Your task to perform on an android device: Search for Mexican restaurants on Maps Image 0: 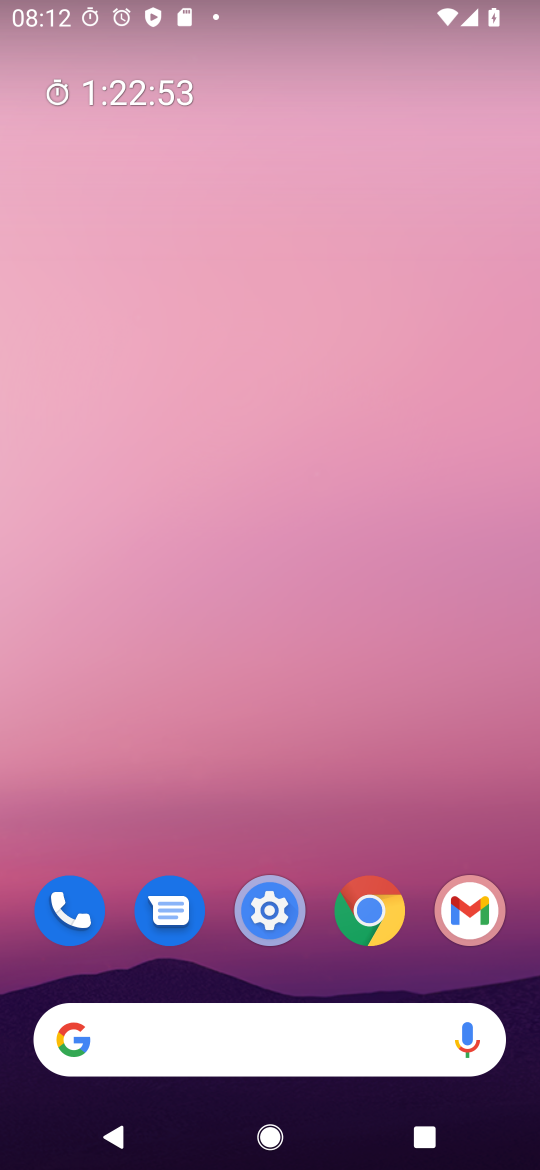
Step 0: drag from (419, 1008) to (349, 136)
Your task to perform on an android device: Search for Mexican restaurants on Maps Image 1: 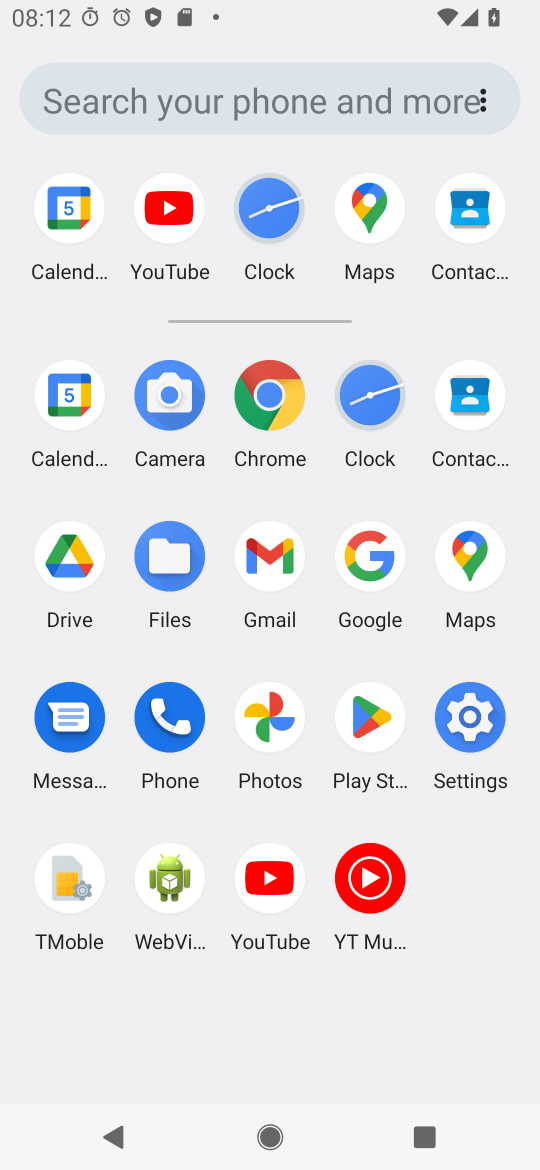
Step 1: click (473, 559)
Your task to perform on an android device: Search for Mexican restaurants on Maps Image 2: 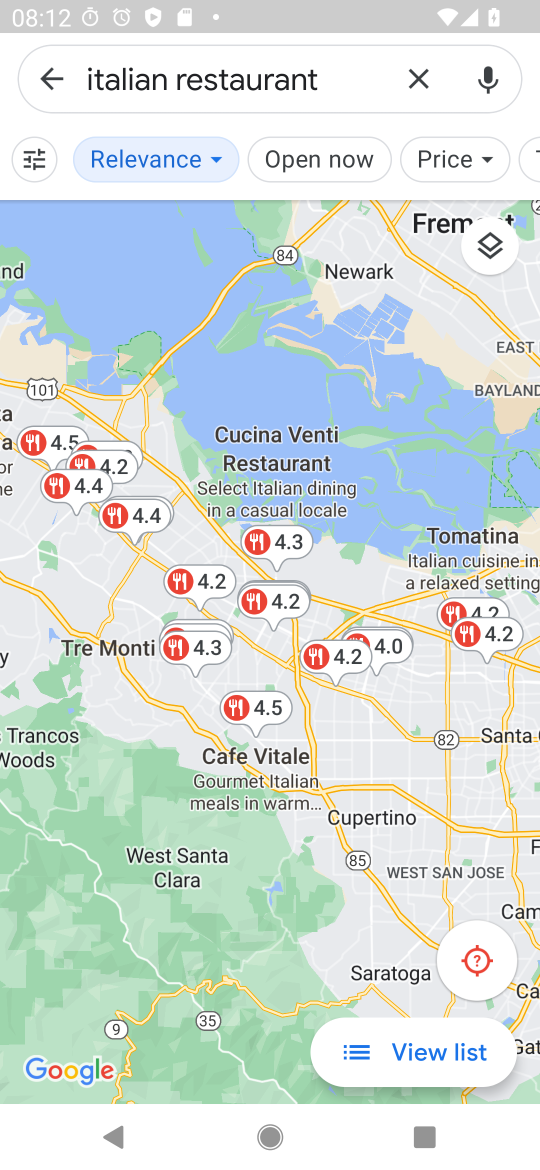
Step 2: click (427, 75)
Your task to perform on an android device: Search for Mexican restaurants on Maps Image 3: 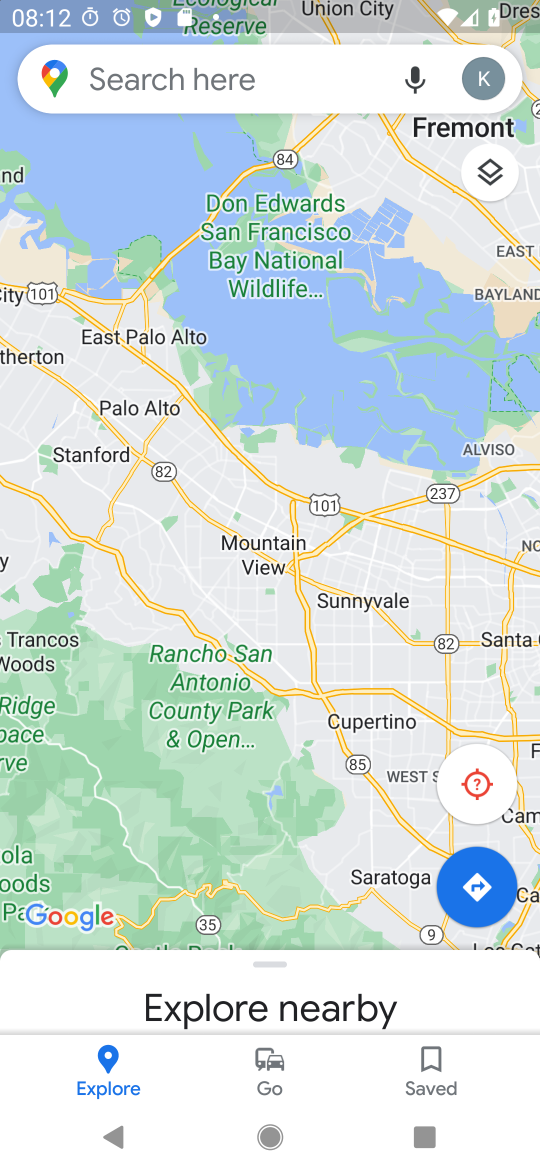
Step 3: click (291, 77)
Your task to perform on an android device: Search for Mexican restaurants on Maps Image 4: 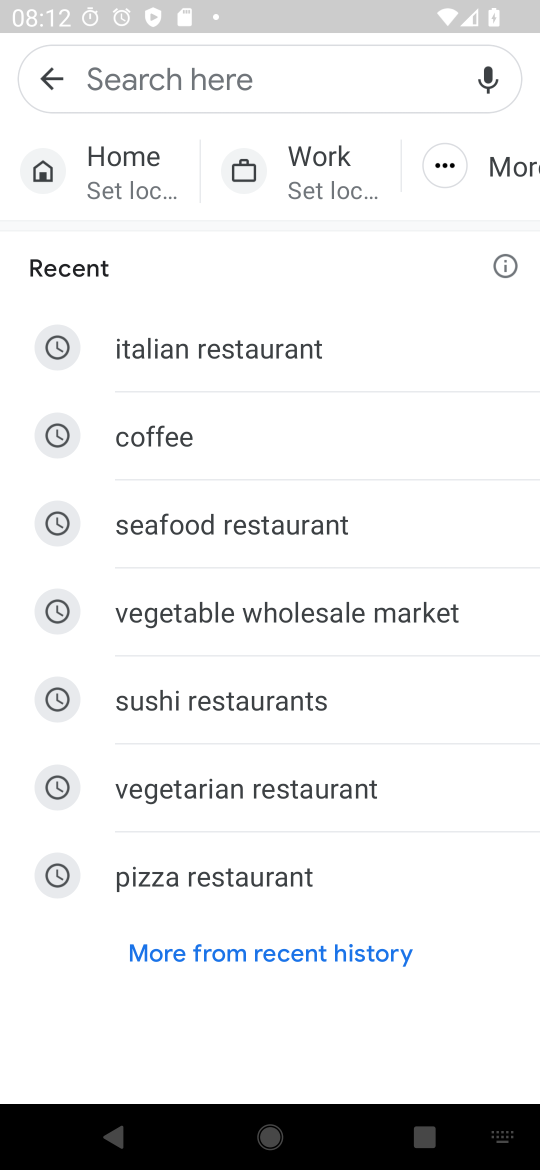
Step 4: type "mexican restaurant"
Your task to perform on an android device: Search for Mexican restaurants on Maps Image 5: 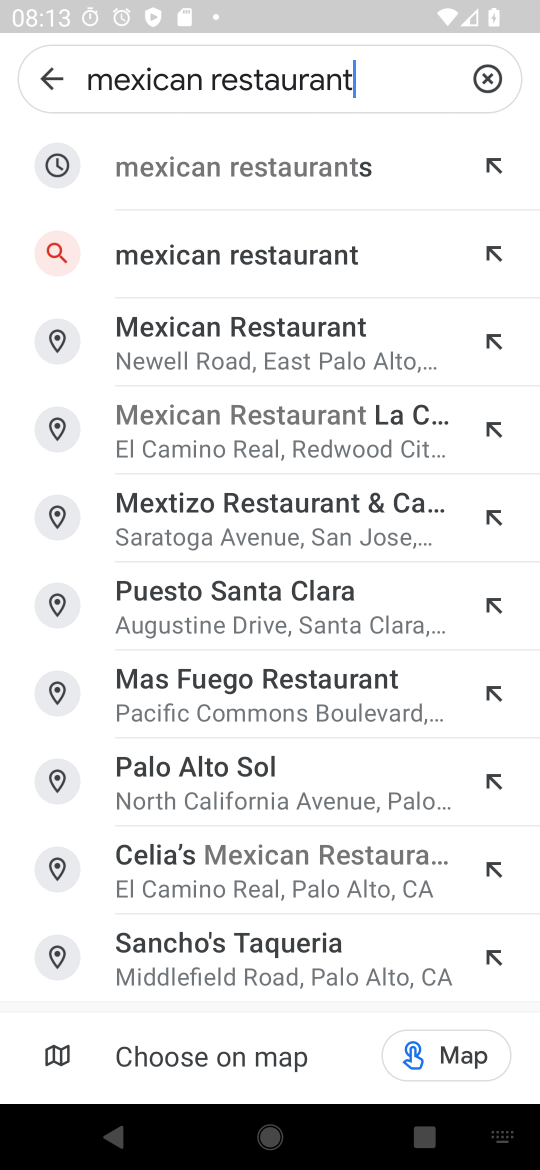
Step 5: click (380, 260)
Your task to perform on an android device: Search for Mexican restaurants on Maps Image 6: 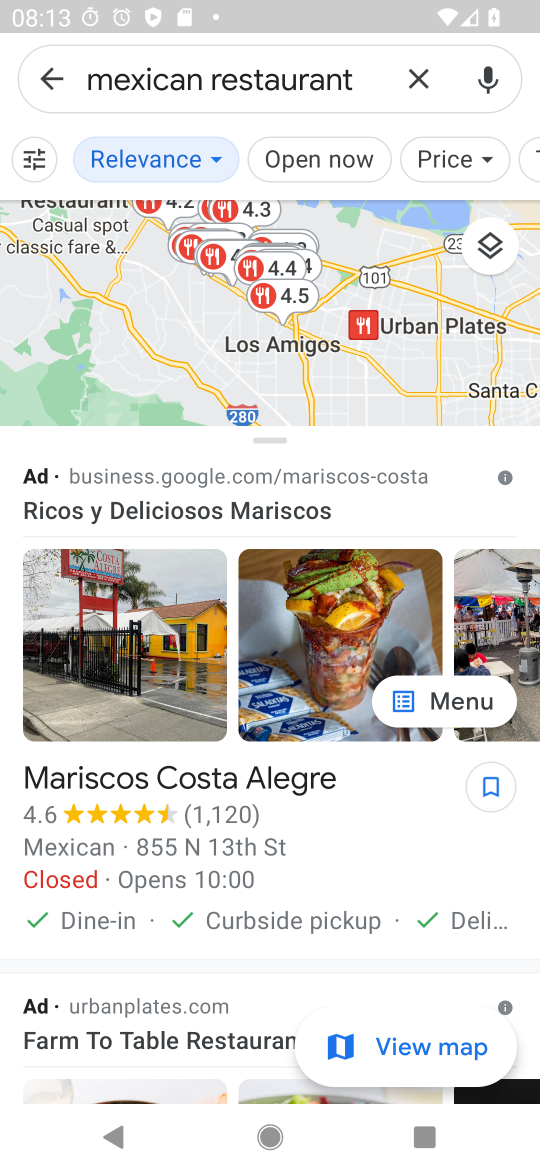
Step 6: task complete